Your task to perform on an android device: see sites visited before in the chrome app Image 0: 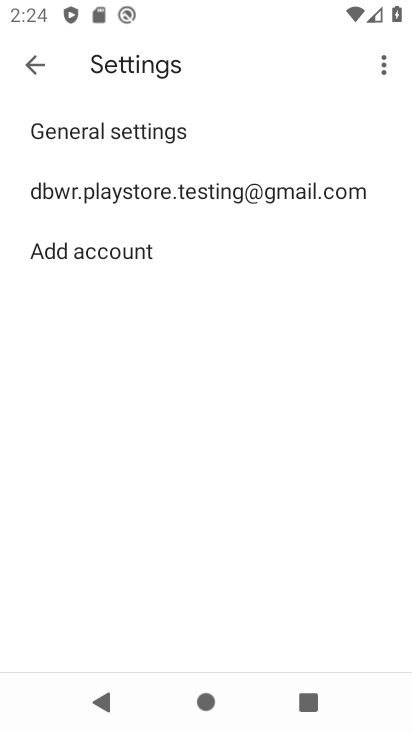
Step 0: click (30, 65)
Your task to perform on an android device: see sites visited before in the chrome app Image 1: 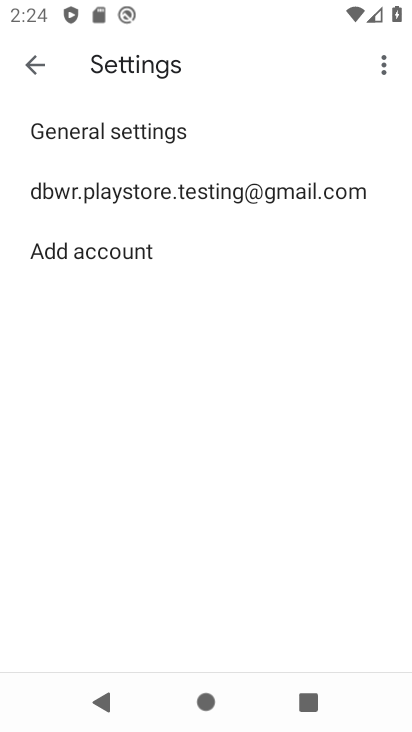
Step 1: click (30, 65)
Your task to perform on an android device: see sites visited before in the chrome app Image 2: 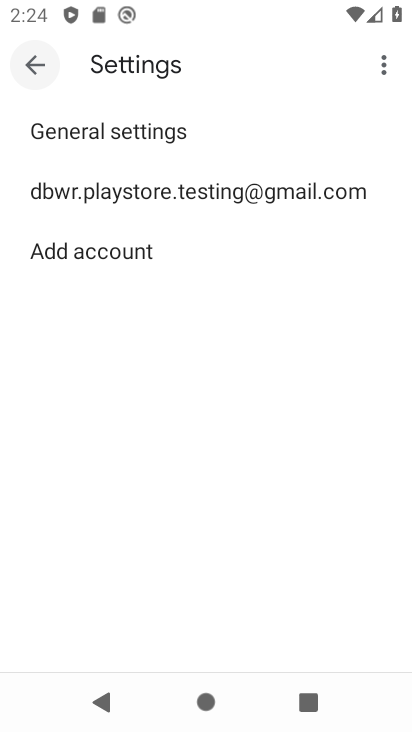
Step 2: click (30, 65)
Your task to perform on an android device: see sites visited before in the chrome app Image 3: 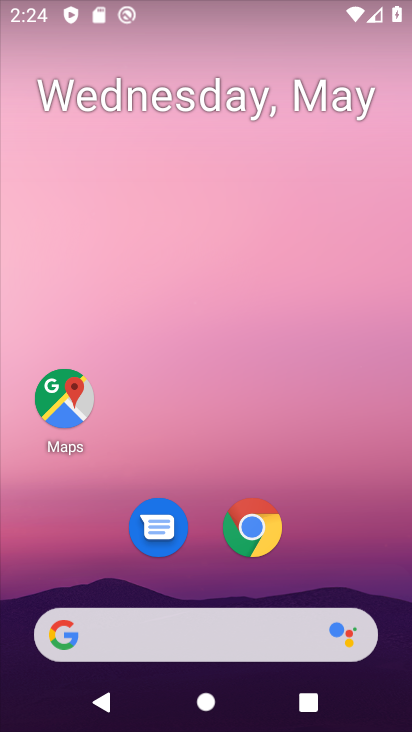
Step 3: drag from (277, 672) to (103, 129)
Your task to perform on an android device: see sites visited before in the chrome app Image 4: 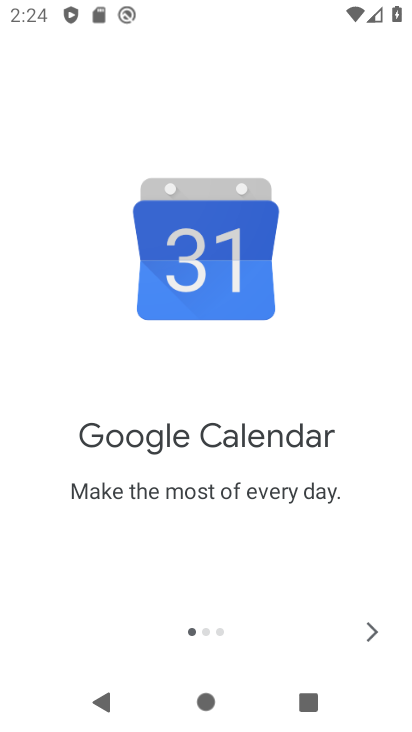
Step 4: click (368, 618)
Your task to perform on an android device: see sites visited before in the chrome app Image 5: 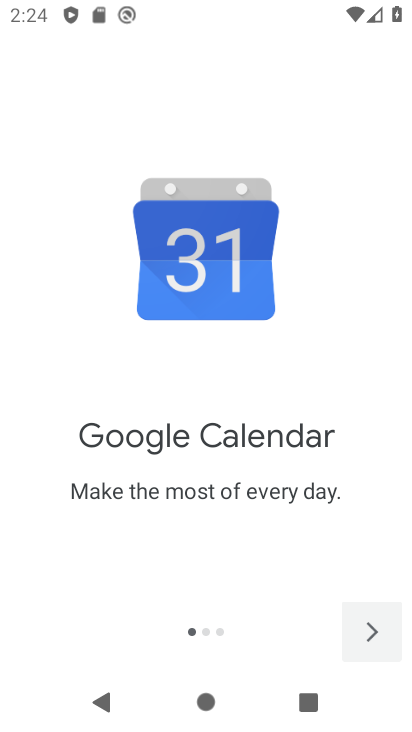
Step 5: click (376, 617)
Your task to perform on an android device: see sites visited before in the chrome app Image 6: 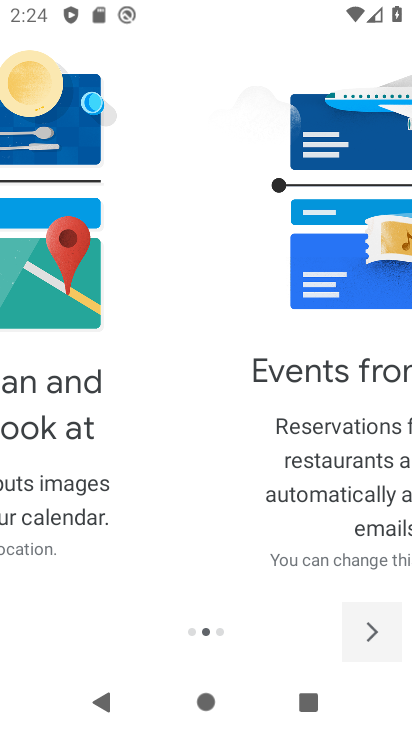
Step 6: click (374, 624)
Your task to perform on an android device: see sites visited before in the chrome app Image 7: 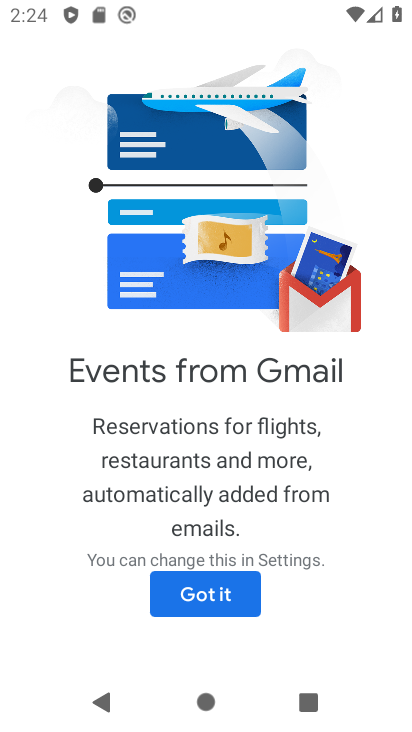
Step 7: click (373, 625)
Your task to perform on an android device: see sites visited before in the chrome app Image 8: 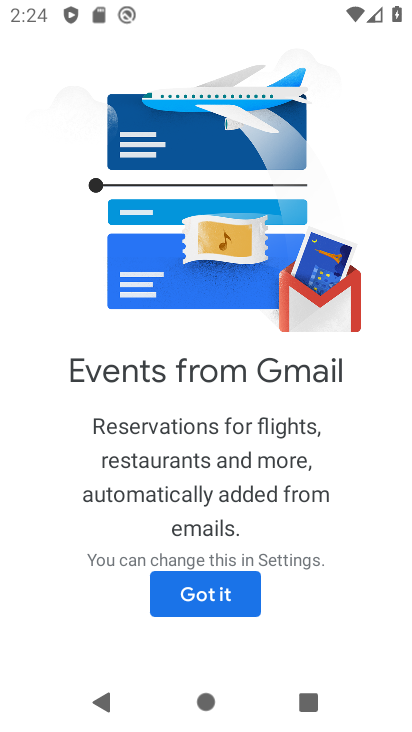
Step 8: click (373, 626)
Your task to perform on an android device: see sites visited before in the chrome app Image 9: 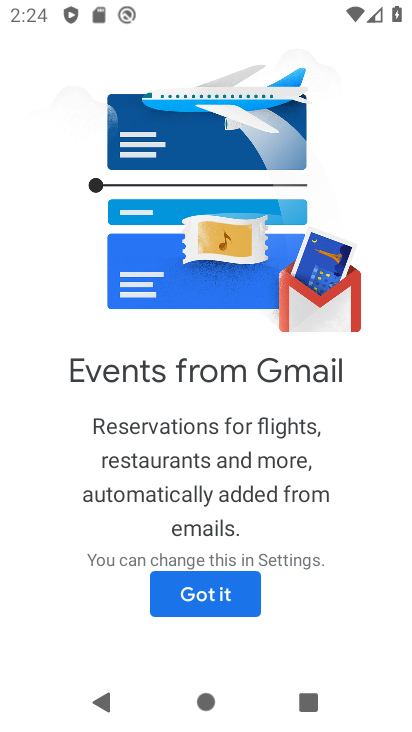
Step 9: click (218, 584)
Your task to perform on an android device: see sites visited before in the chrome app Image 10: 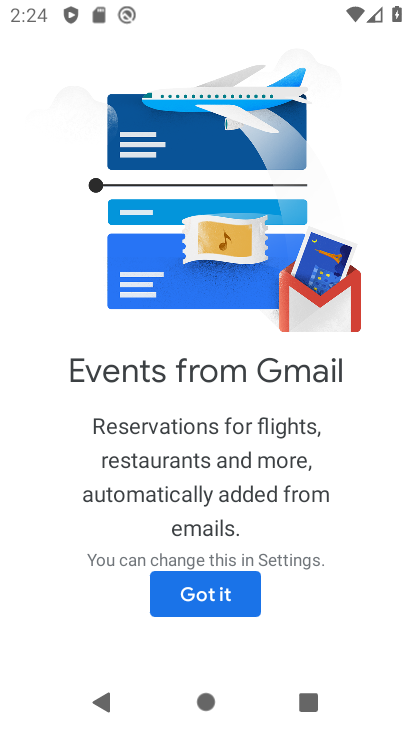
Step 10: click (218, 584)
Your task to perform on an android device: see sites visited before in the chrome app Image 11: 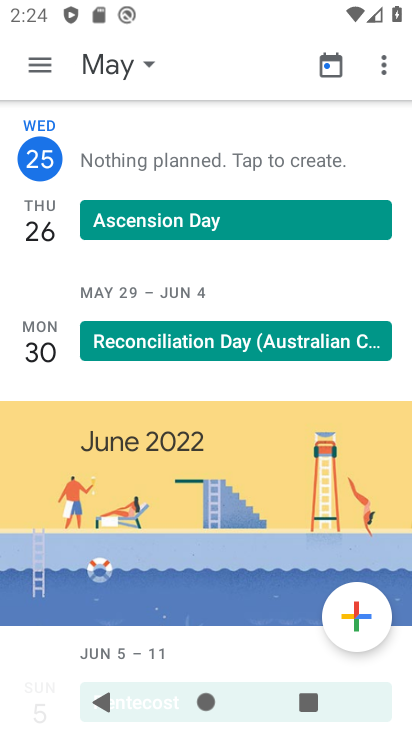
Step 11: press back button
Your task to perform on an android device: see sites visited before in the chrome app Image 12: 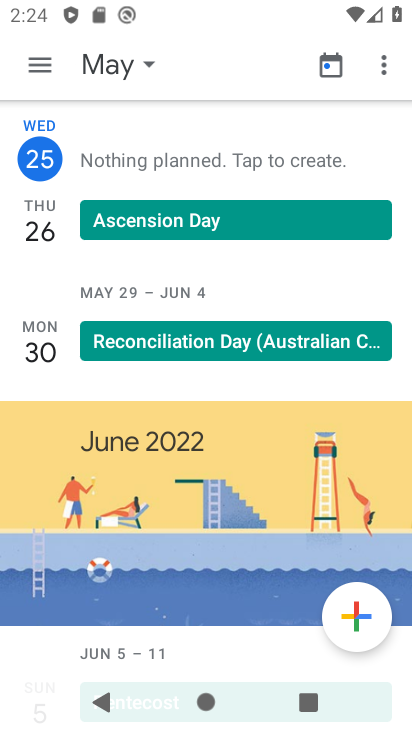
Step 12: press back button
Your task to perform on an android device: see sites visited before in the chrome app Image 13: 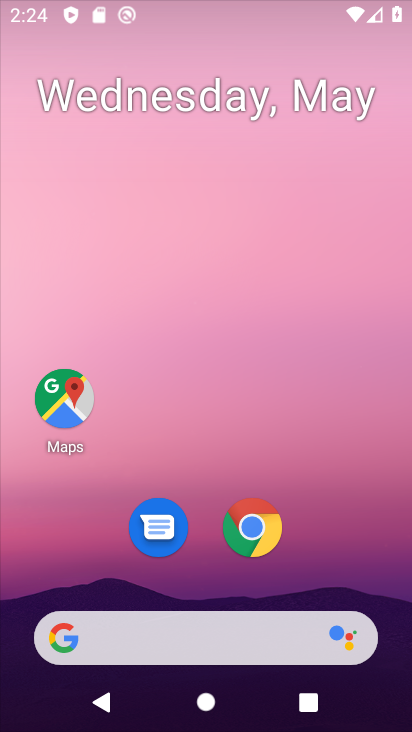
Step 13: press back button
Your task to perform on an android device: see sites visited before in the chrome app Image 14: 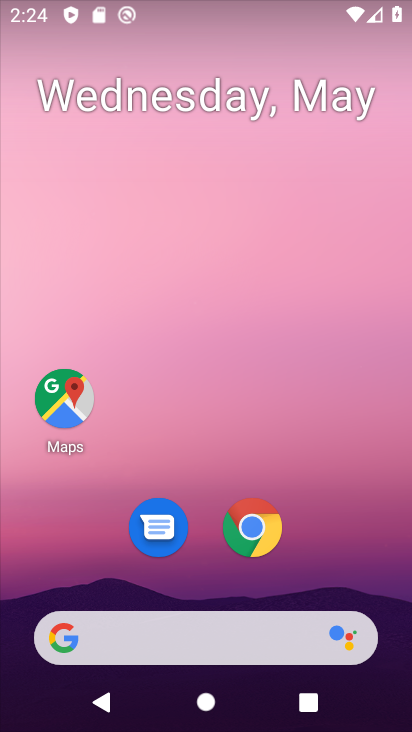
Step 14: drag from (250, 610) to (204, 1)
Your task to perform on an android device: see sites visited before in the chrome app Image 15: 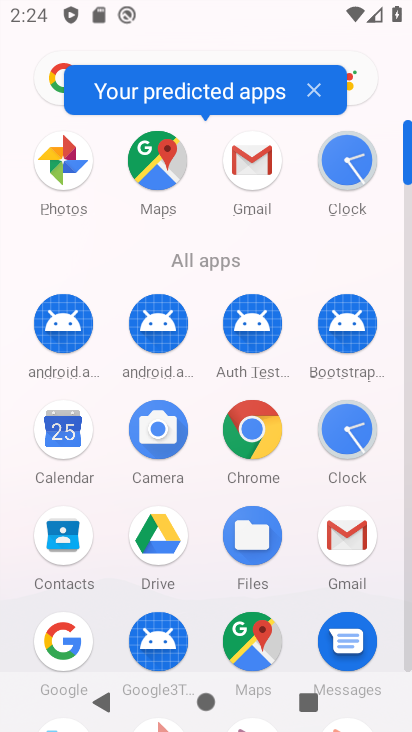
Step 15: click (259, 426)
Your task to perform on an android device: see sites visited before in the chrome app Image 16: 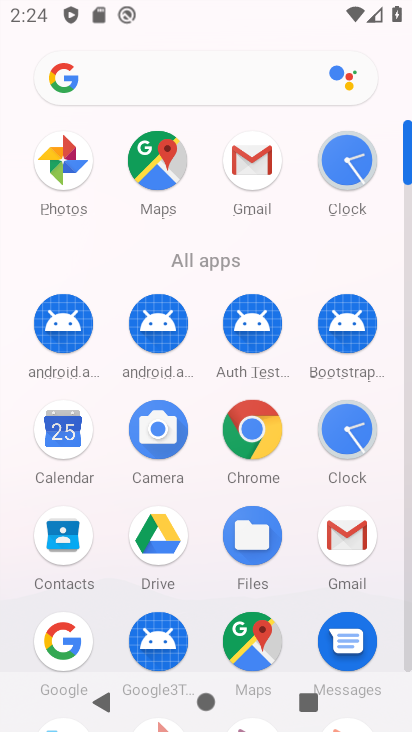
Step 16: click (259, 426)
Your task to perform on an android device: see sites visited before in the chrome app Image 17: 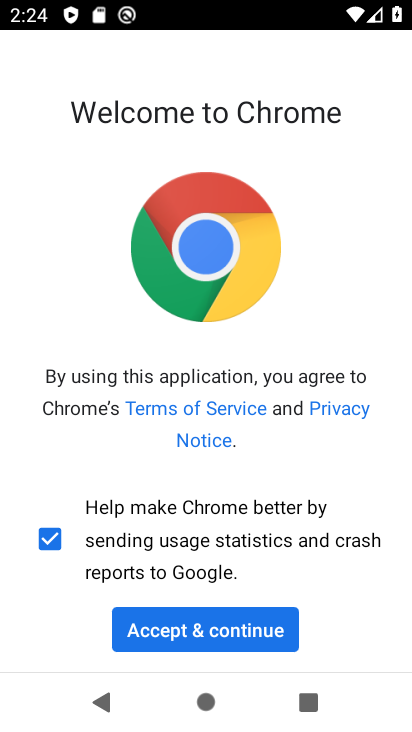
Step 17: click (208, 626)
Your task to perform on an android device: see sites visited before in the chrome app Image 18: 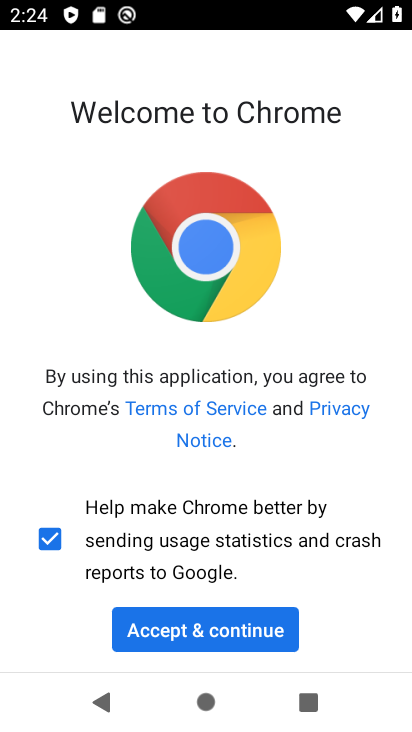
Step 18: click (208, 626)
Your task to perform on an android device: see sites visited before in the chrome app Image 19: 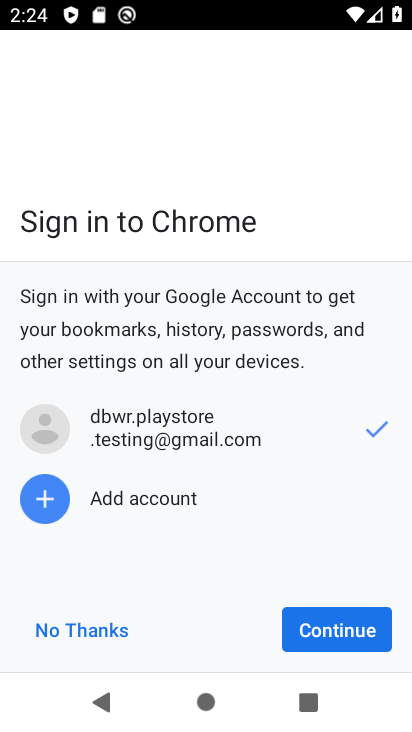
Step 19: click (208, 626)
Your task to perform on an android device: see sites visited before in the chrome app Image 20: 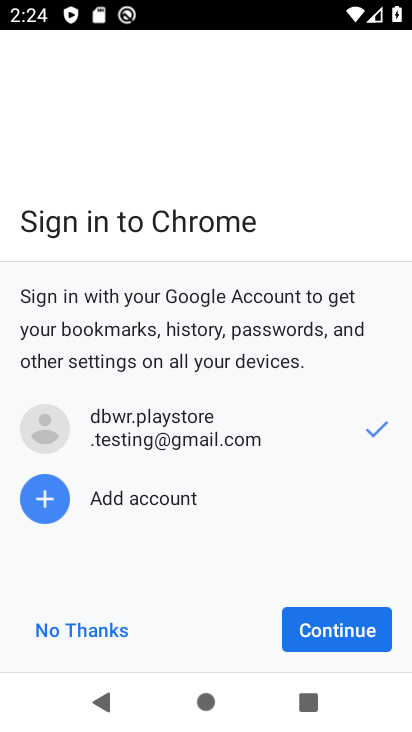
Step 20: click (208, 626)
Your task to perform on an android device: see sites visited before in the chrome app Image 21: 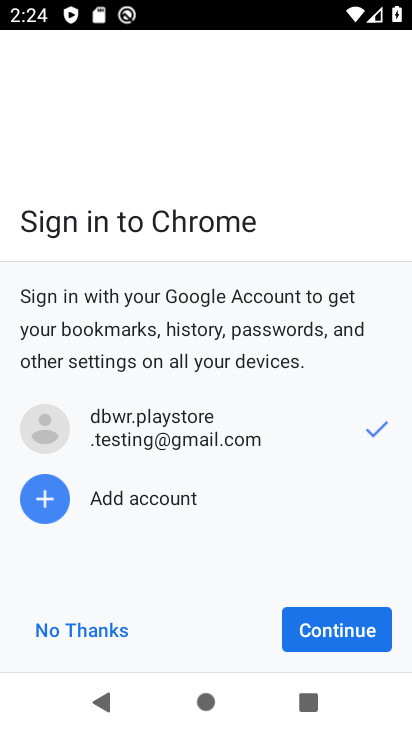
Step 21: click (329, 633)
Your task to perform on an android device: see sites visited before in the chrome app Image 22: 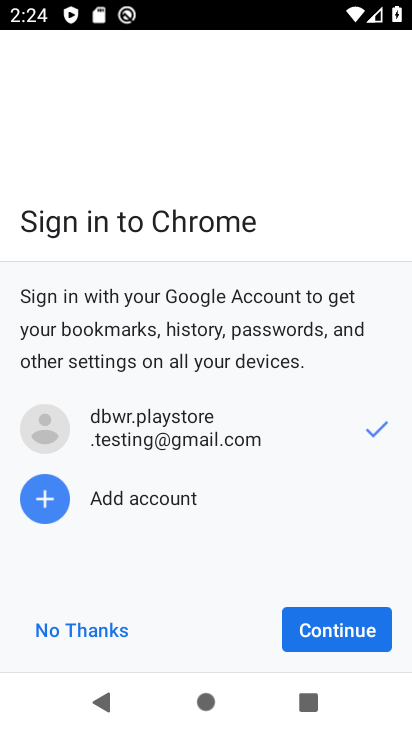
Step 22: click (330, 633)
Your task to perform on an android device: see sites visited before in the chrome app Image 23: 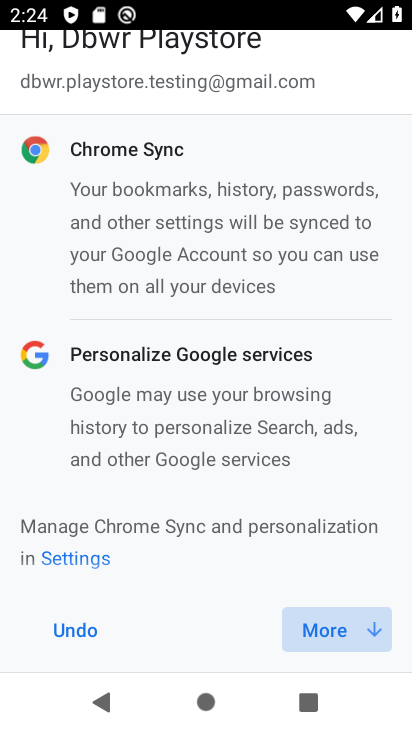
Step 23: click (333, 631)
Your task to perform on an android device: see sites visited before in the chrome app Image 24: 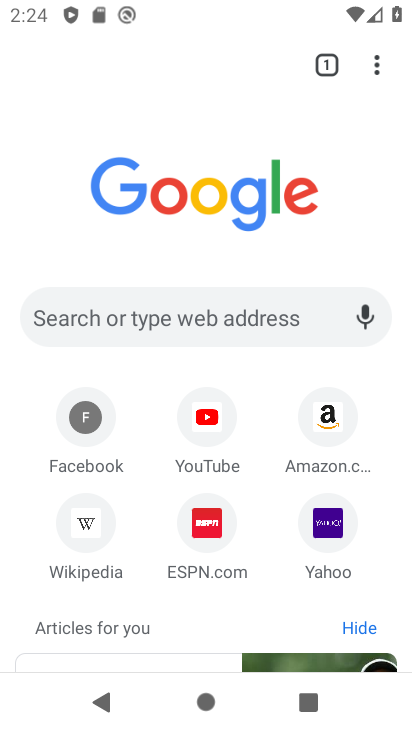
Step 24: drag from (375, 69) to (145, 307)
Your task to perform on an android device: see sites visited before in the chrome app Image 25: 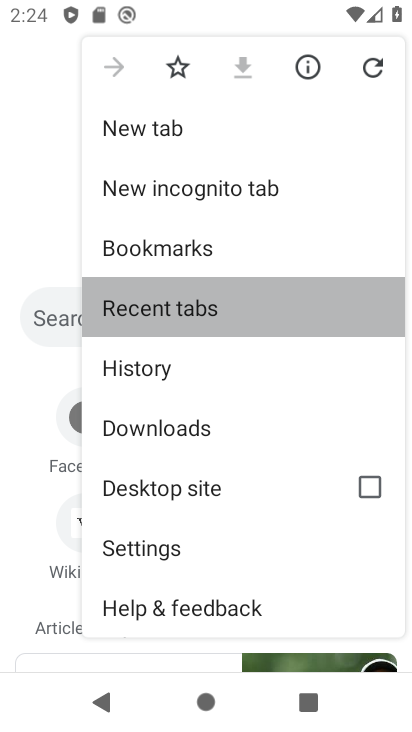
Step 25: click (145, 309)
Your task to perform on an android device: see sites visited before in the chrome app Image 26: 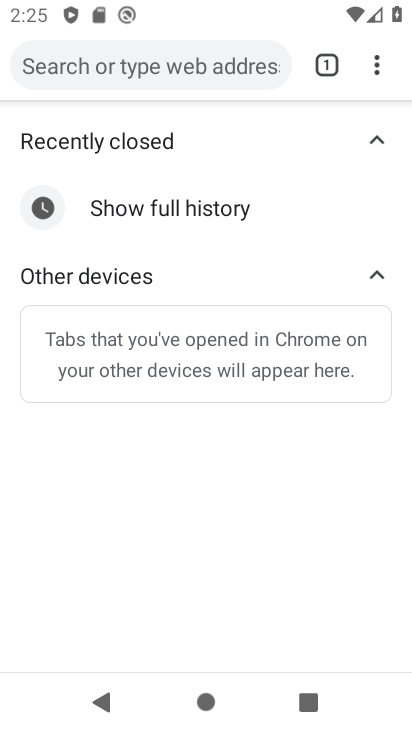
Step 26: task complete